Your task to perform on an android device: Add "logitech g pro" to the cart on bestbuy, then select checkout. Image 0: 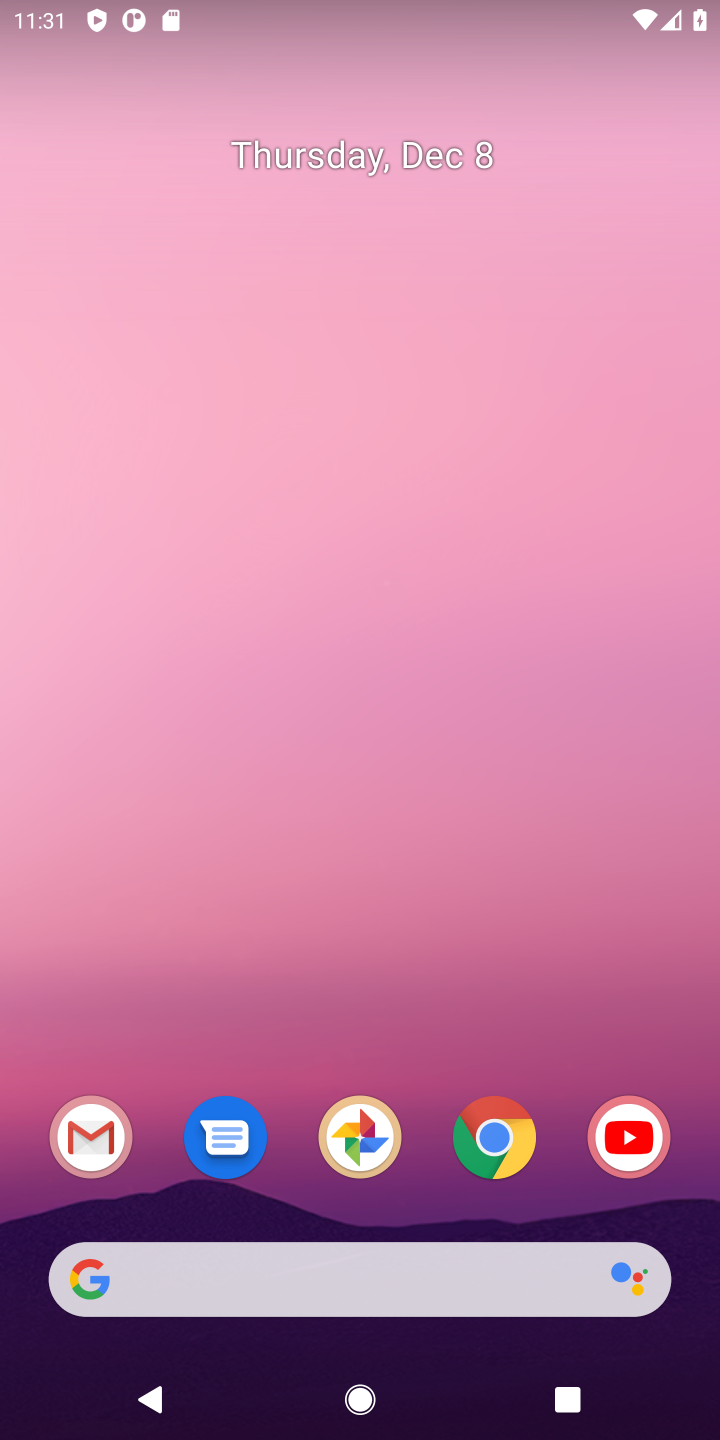
Step 0: click (487, 1137)
Your task to perform on an android device: Add "logitech g pro" to the cart on bestbuy, then select checkout. Image 1: 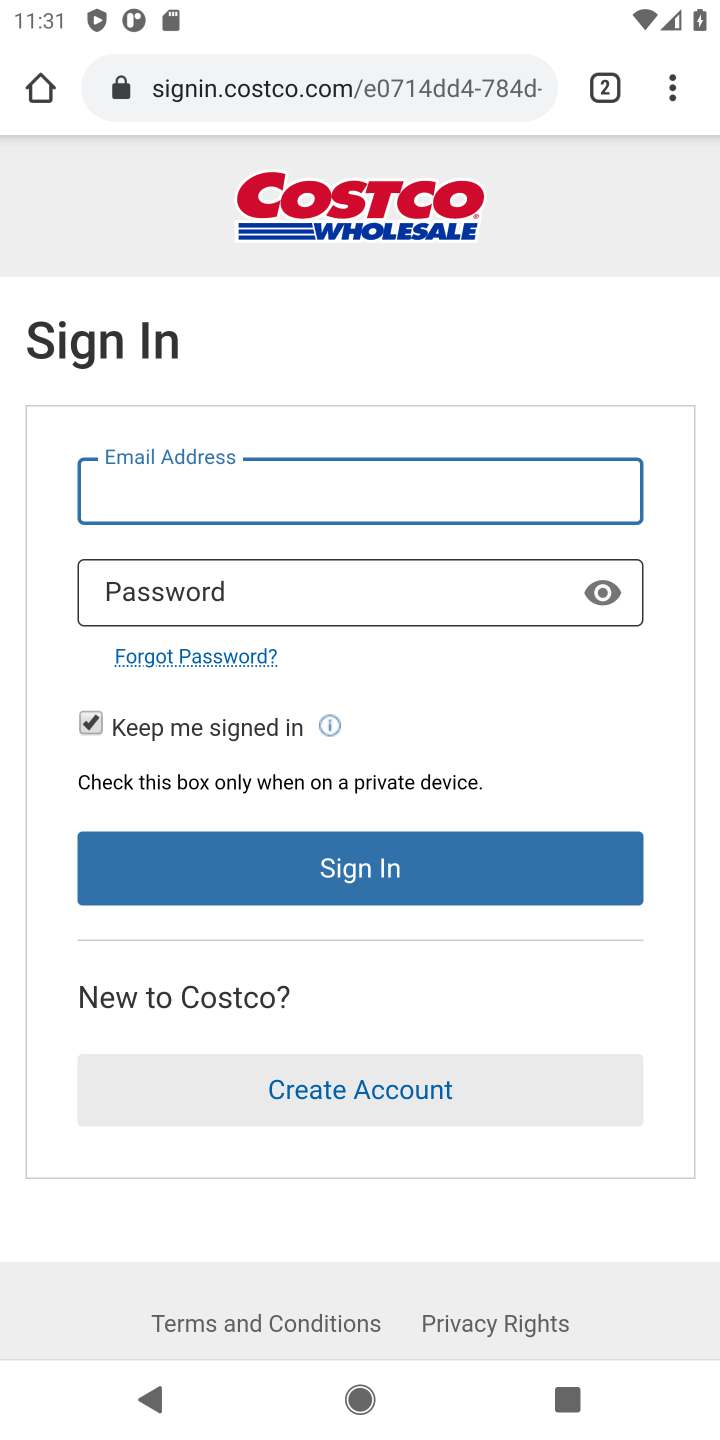
Step 1: click (434, 76)
Your task to perform on an android device: Add "logitech g pro" to the cart on bestbuy, then select checkout. Image 2: 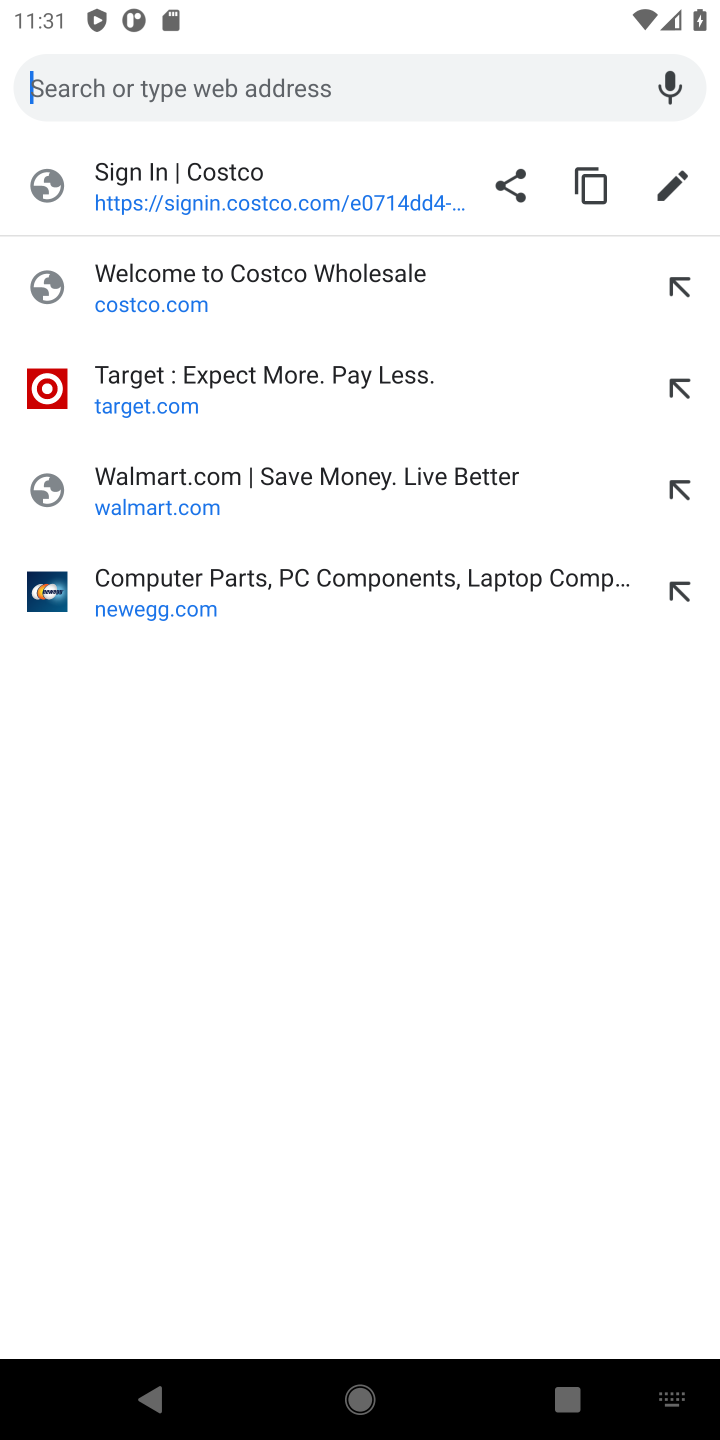
Step 2: type "bestbuy"
Your task to perform on an android device: Add "logitech g pro" to the cart on bestbuy, then select checkout. Image 3: 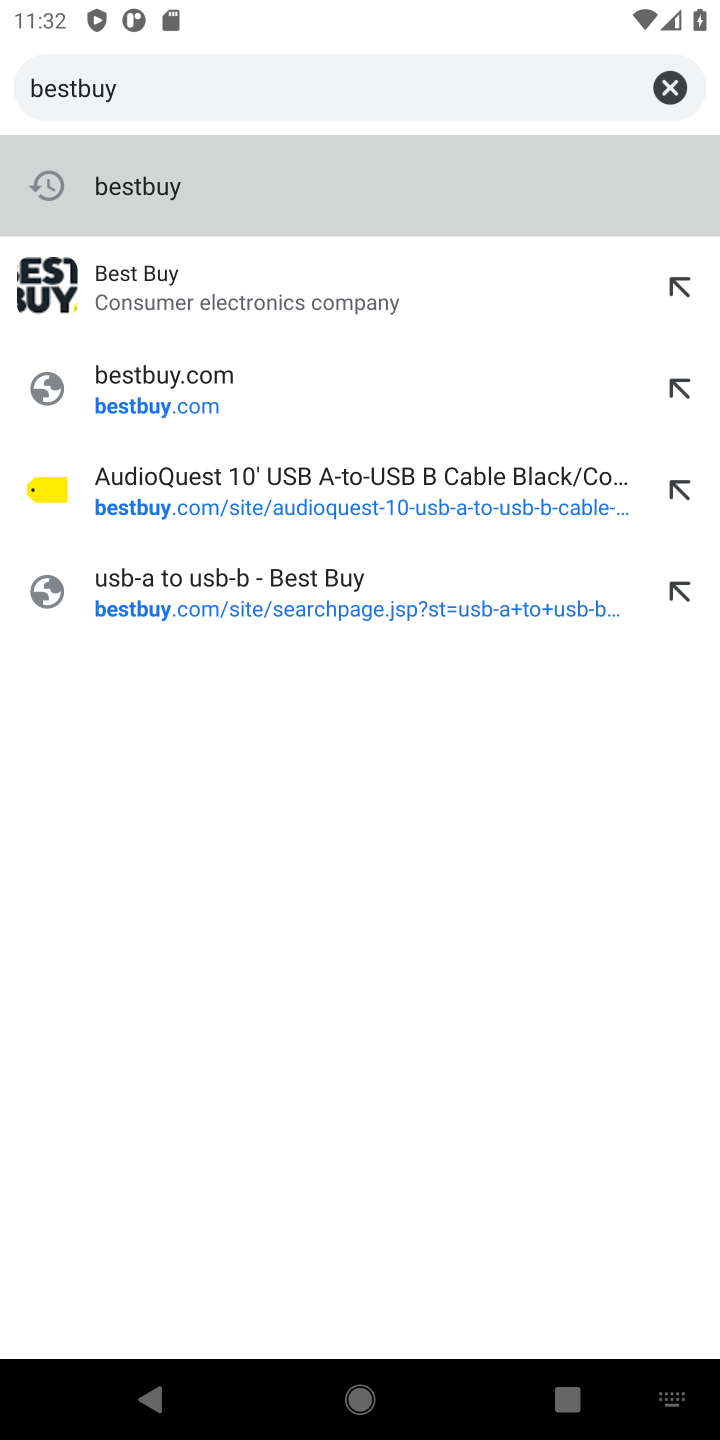
Step 3: click (214, 286)
Your task to perform on an android device: Add "logitech g pro" to the cart on bestbuy, then select checkout. Image 4: 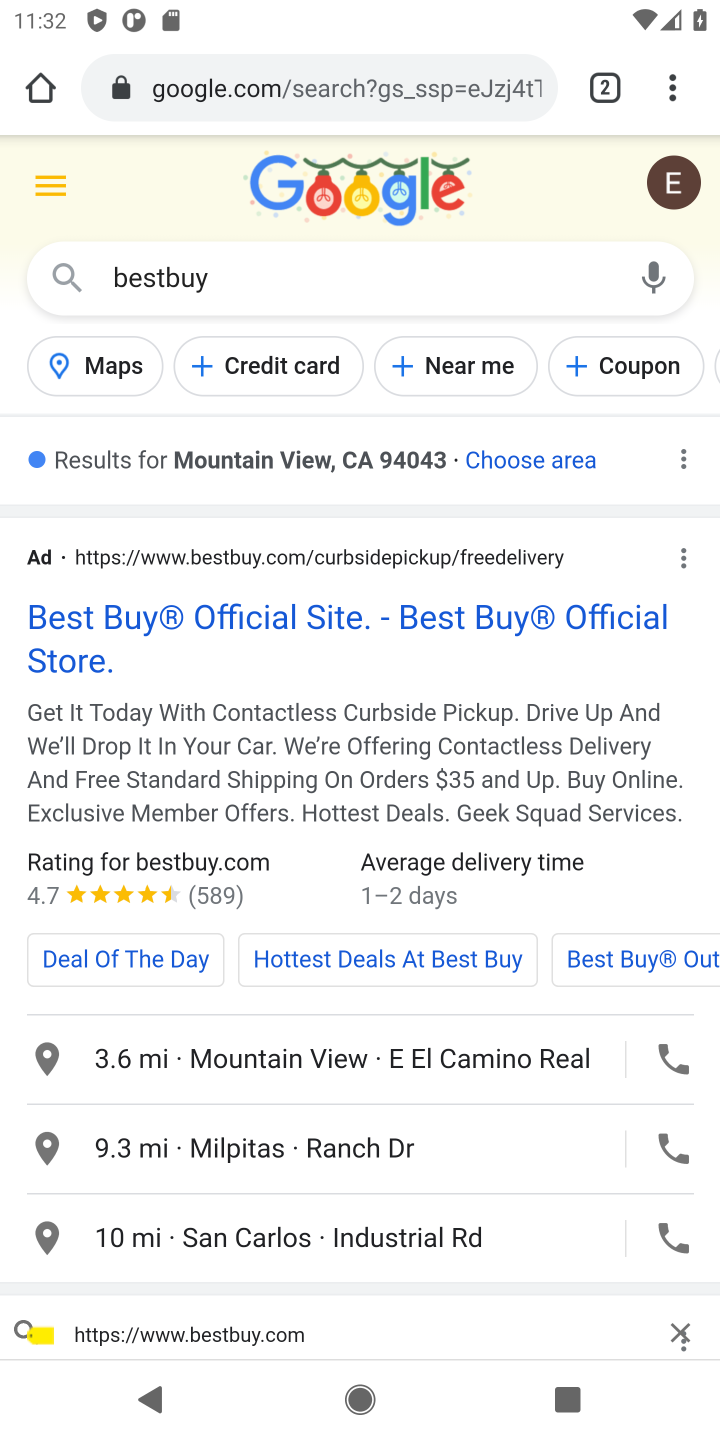
Step 4: click (401, 627)
Your task to perform on an android device: Add "logitech g pro" to the cart on bestbuy, then select checkout. Image 5: 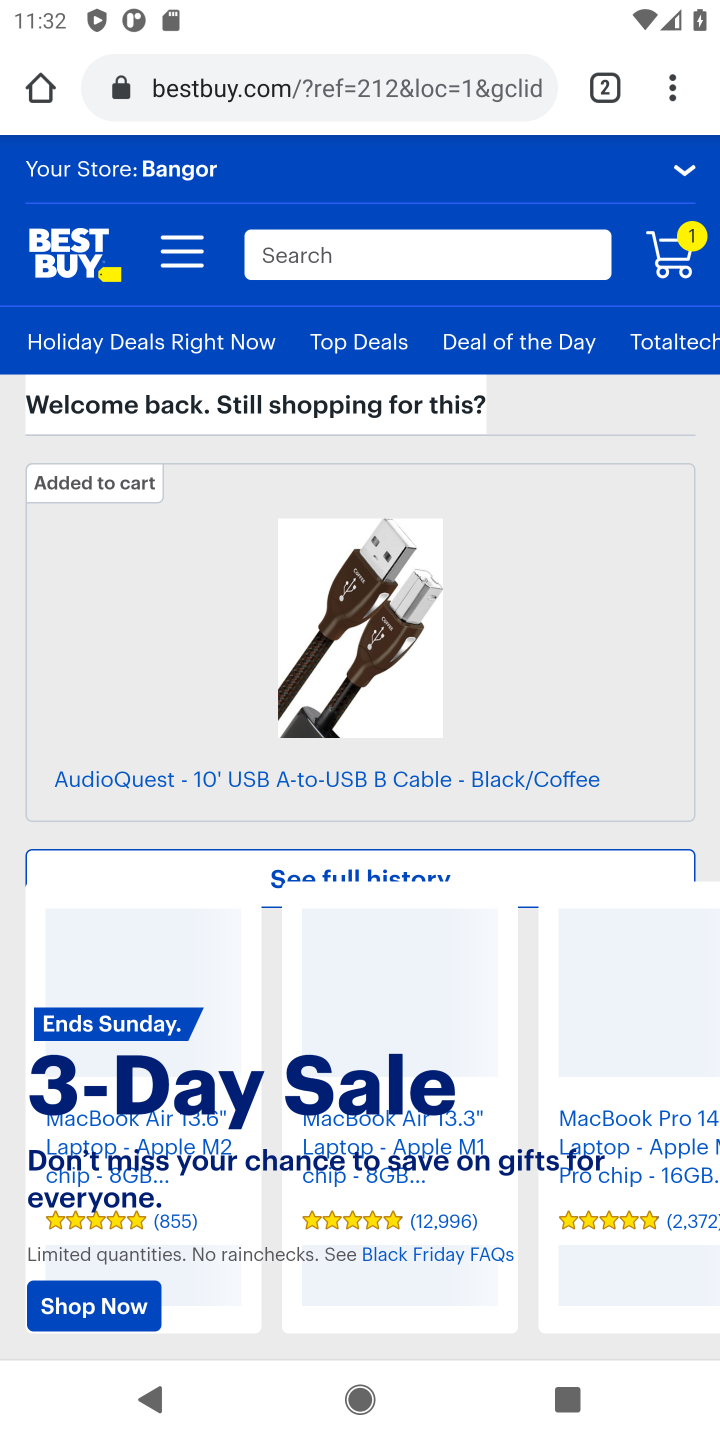
Step 5: click (373, 252)
Your task to perform on an android device: Add "logitech g pro" to the cart on bestbuy, then select checkout. Image 6: 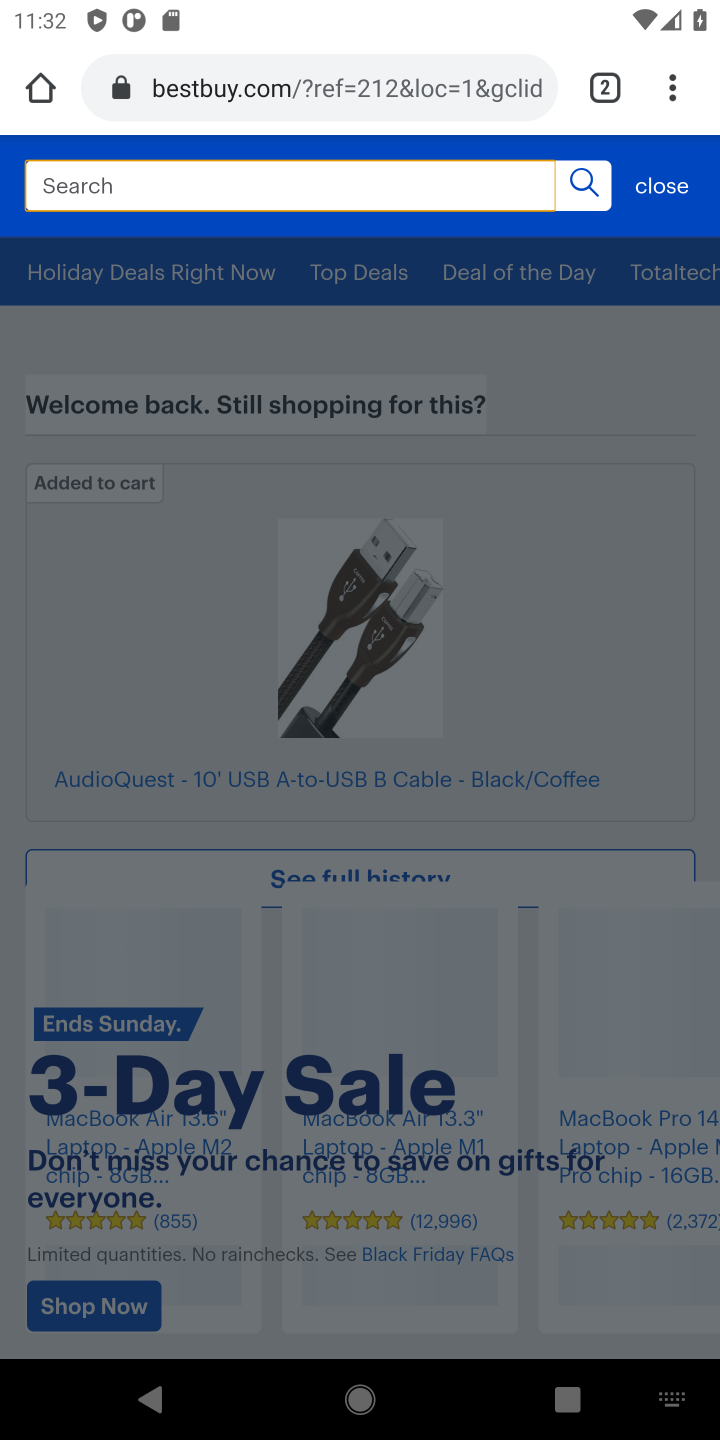
Step 6: type "logitech g pro"
Your task to perform on an android device: Add "logitech g pro" to the cart on bestbuy, then select checkout. Image 7: 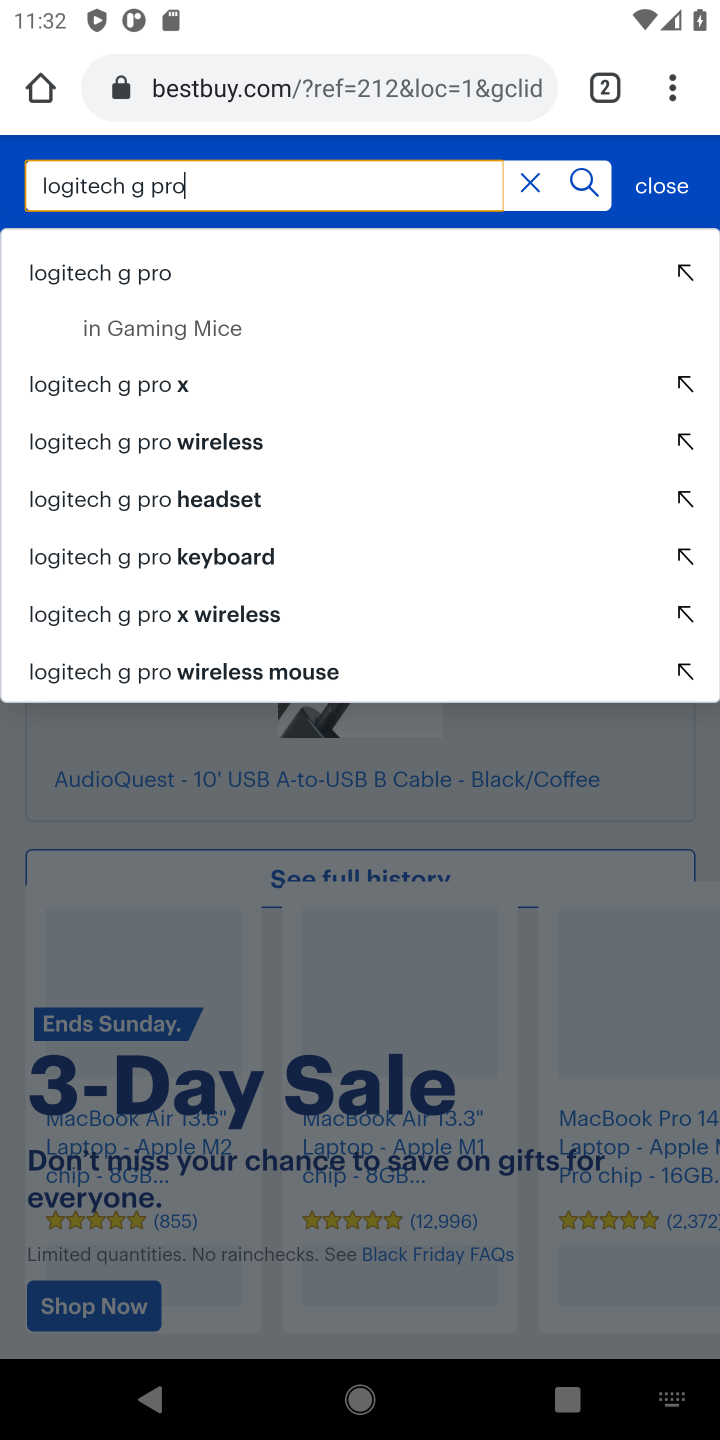
Step 7: click (155, 277)
Your task to perform on an android device: Add "logitech g pro" to the cart on bestbuy, then select checkout. Image 8: 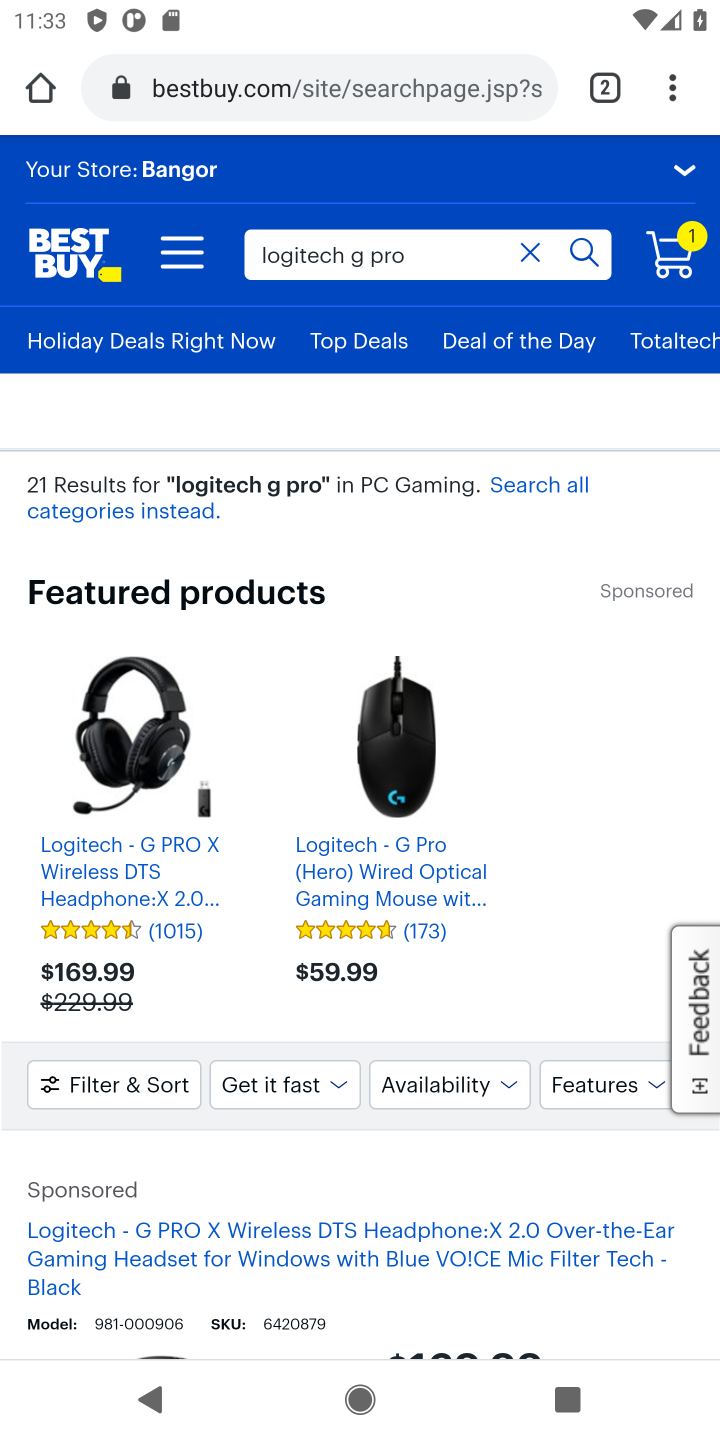
Step 8: drag from (355, 1285) to (340, 562)
Your task to perform on an android device: Add "logitech g pro" to the cart on bestbuy, then select checkout. Image 9: 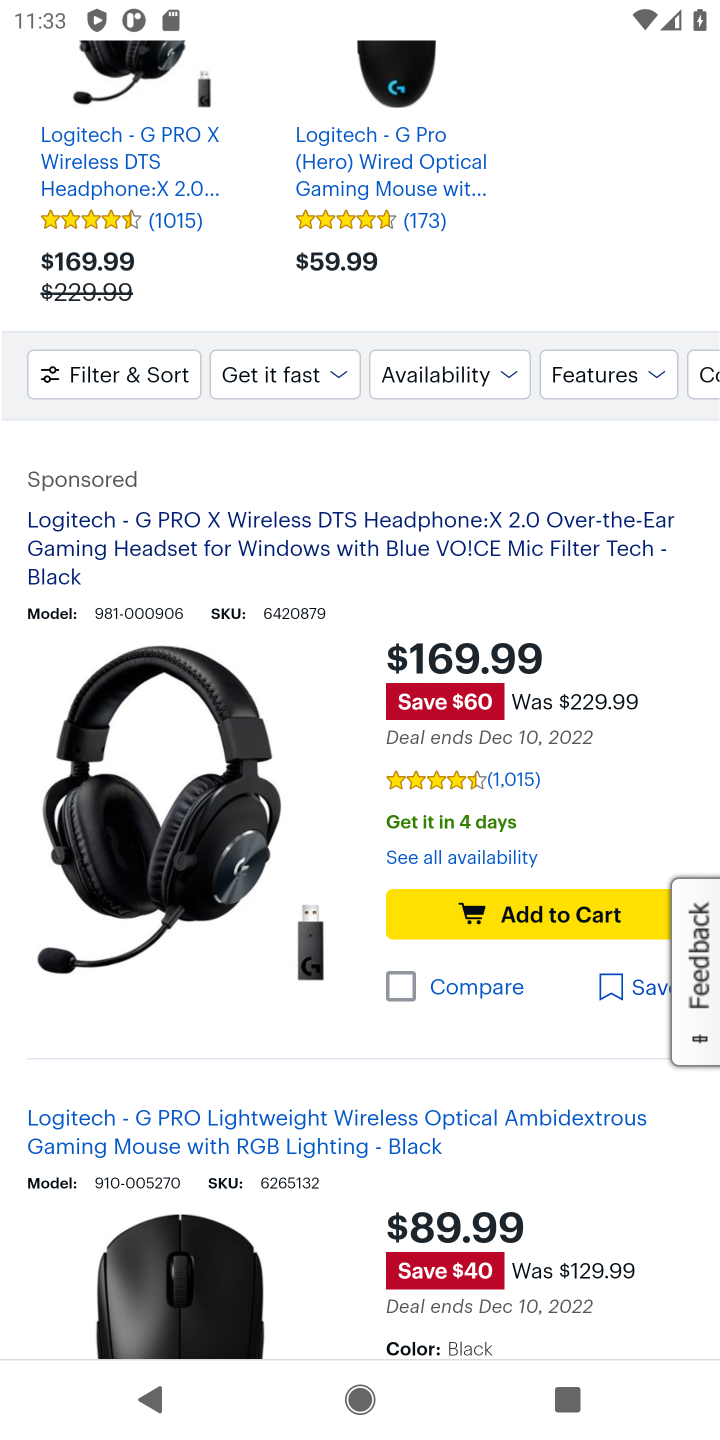
Step 9: click (505, 913)
Your task to perform on an android device: Add "logitech g pro" to the cart on bestbuy, then select checkout. Image 10: 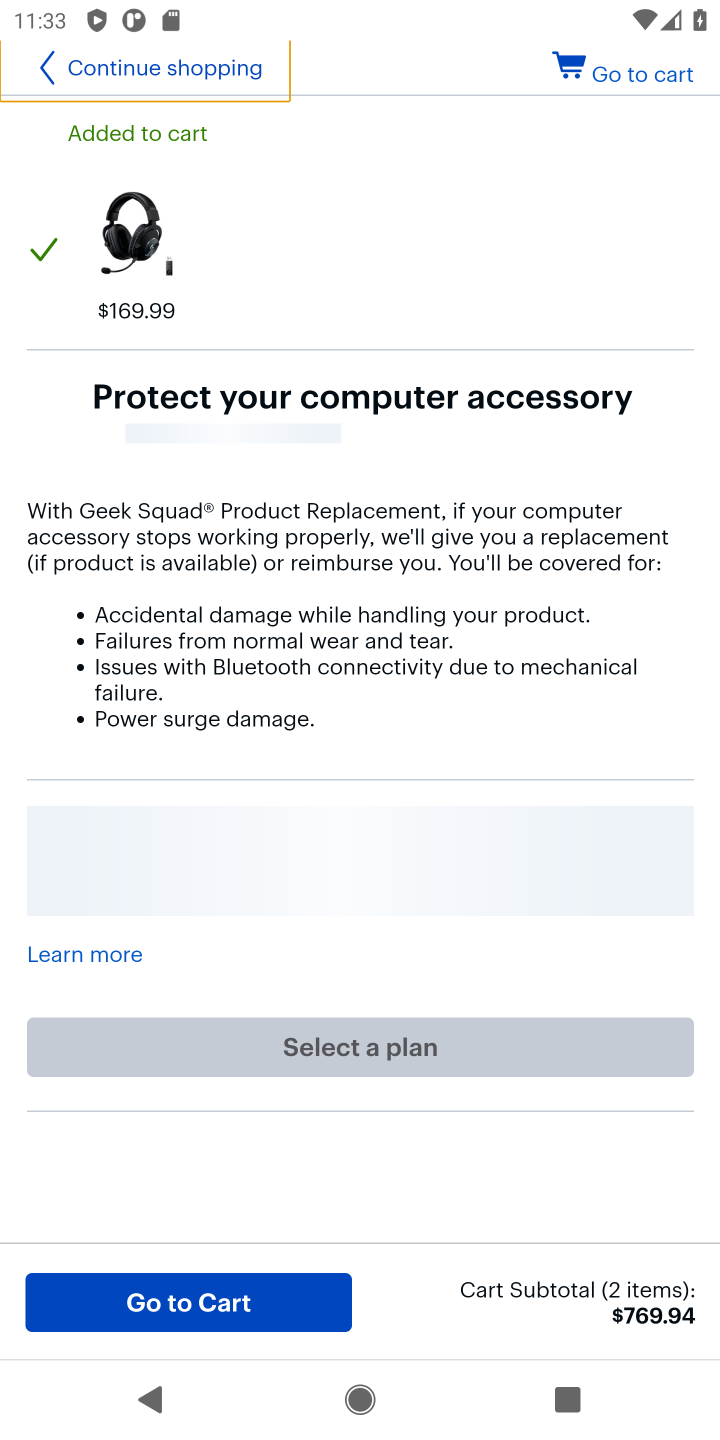
Step 10: click (211, 1300)
Your task to perform on an android device: Add "logitech g pro" to the cart on bestbuy, then select checkout. Image 11: 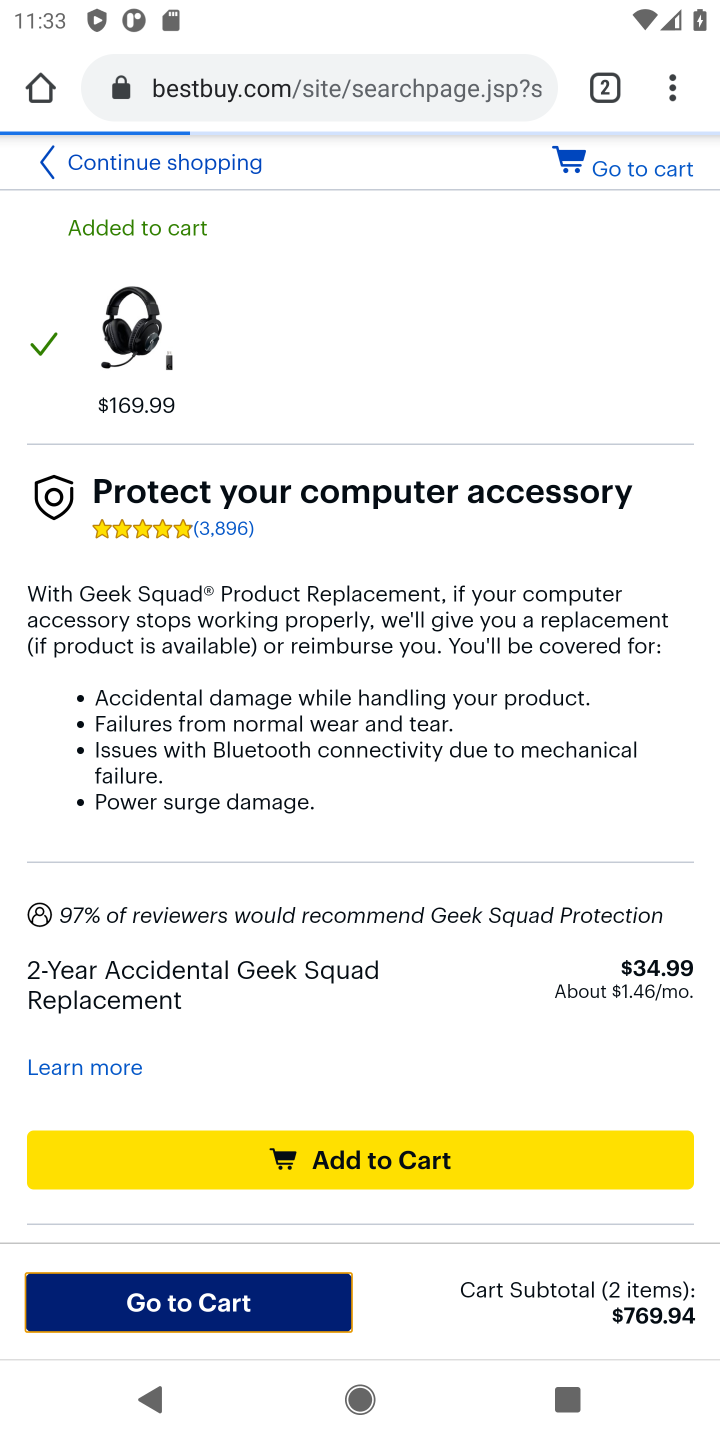
Step 11: click (211, 1310)
Your task to perform on an android device: Add "logitech g pro" to the cart on bestbuy, then select checkout. Image 12: 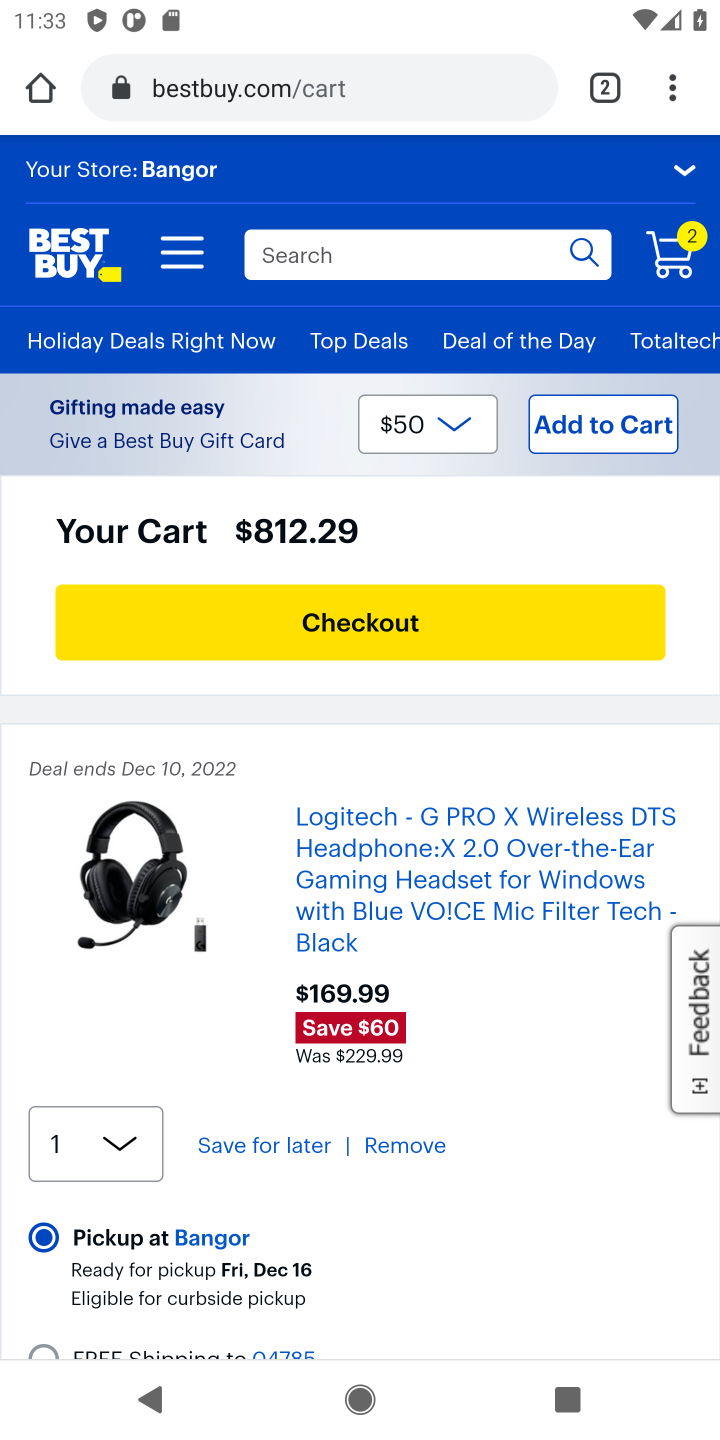
Step 12: click (413, 636)
Your task to perform on an android device: Add "logitech g pro" to the cart on bestbuy, then select checkout. Image 13: 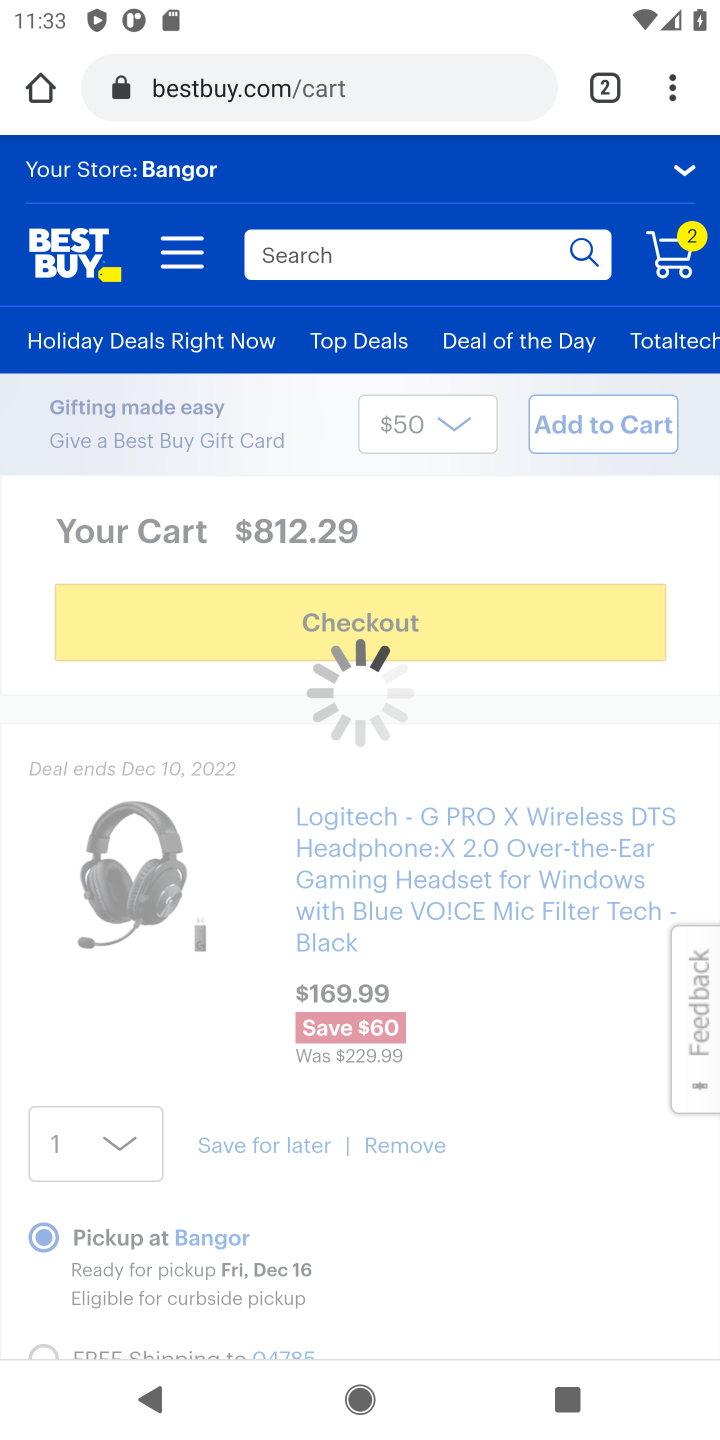
Step 13: task complete